Your task to perform on an android device: change your default location settings in chrome Image 0: 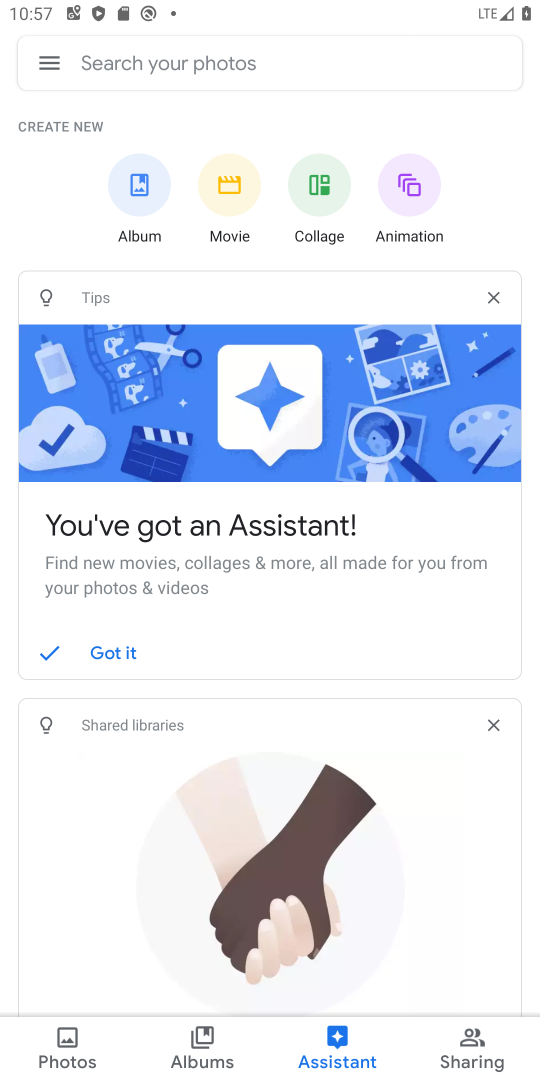
Step 0: press home button
Your task to perform on an android device: change your default location settings in chrome Image 1: 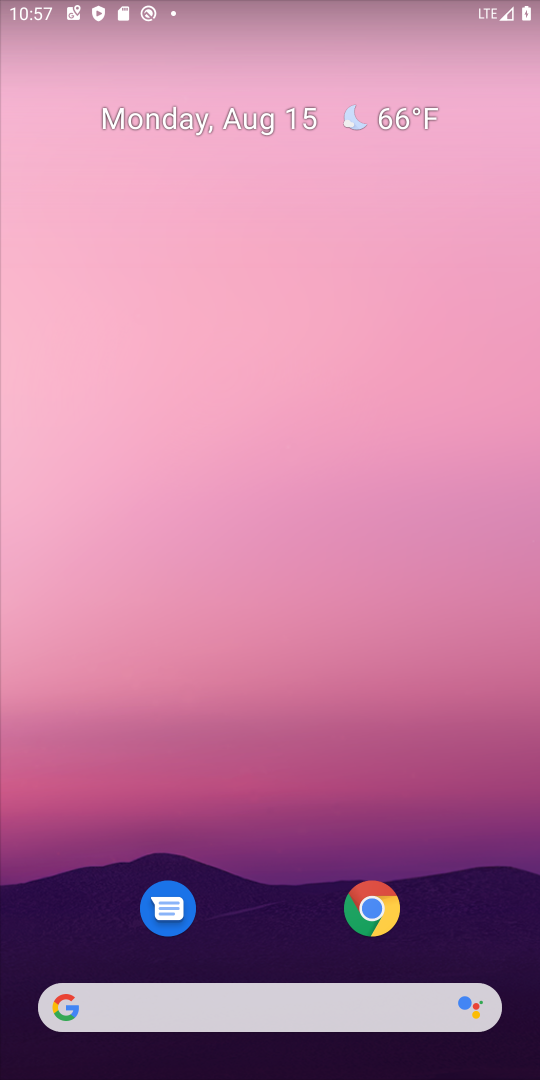
Step 1: click (370, 909)
Your task to perform on an android device: change your default location settings in chrome Image 2: 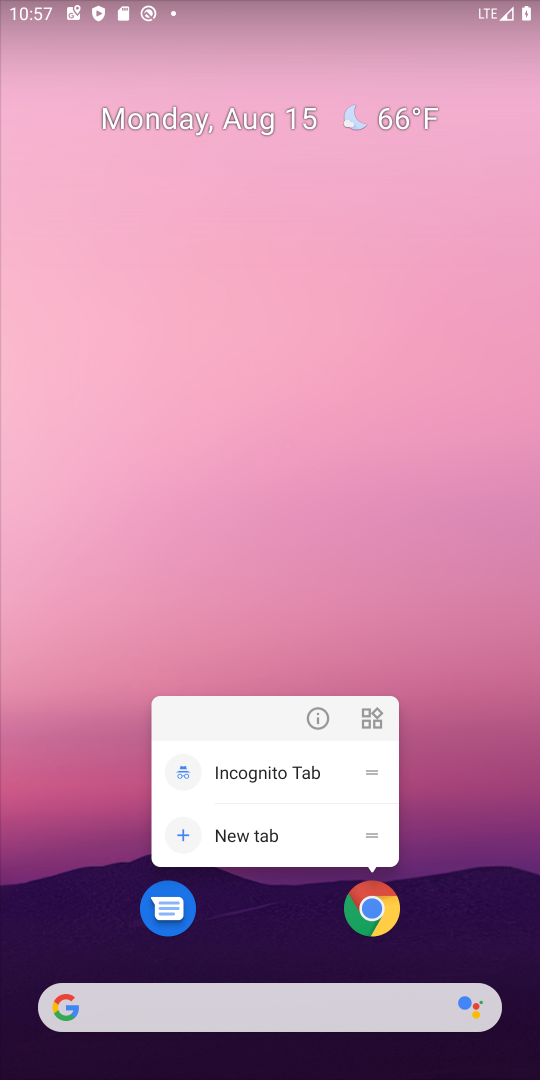
Step 2: click (370, 909)
Your task to perform on an android device: change your default location settings in chrome Image 3: 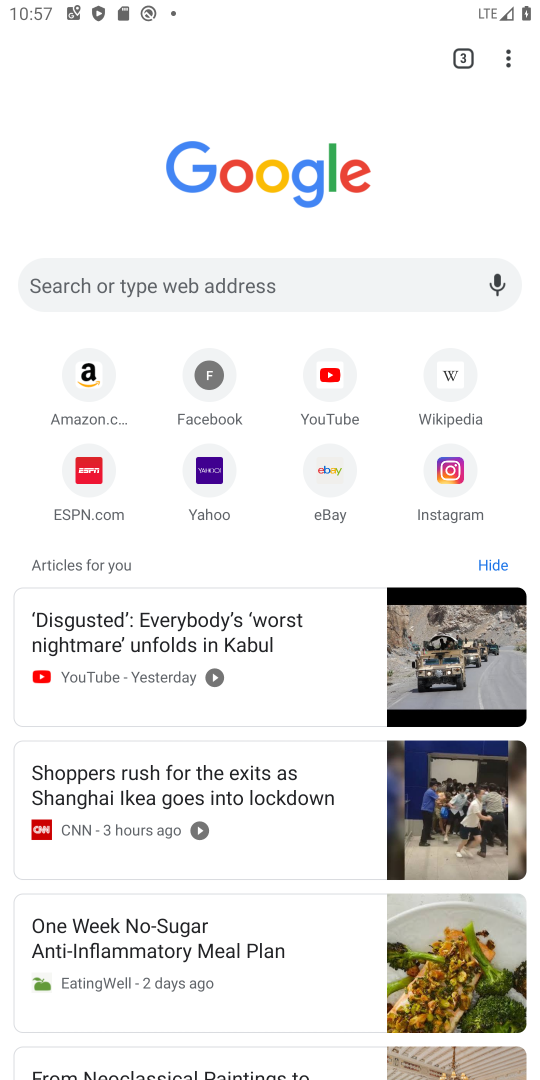
Step 3: click (521, 62)
Your task to perform on an android device: change your default location settings in chrome Image 4: 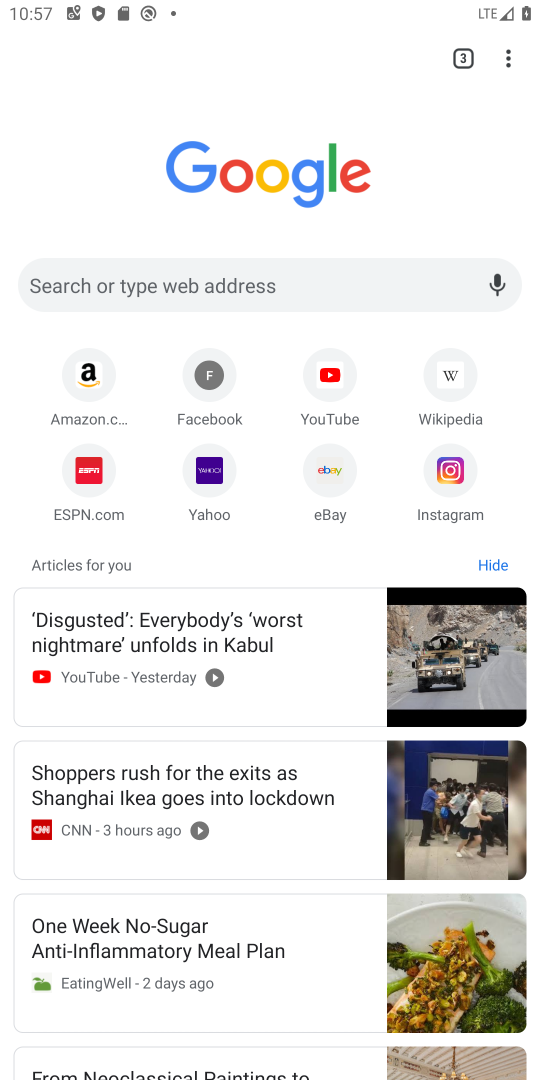
Step 4: click (514, 56)
Your task to perform on an android device: change your default location settings in chrome Image 5: 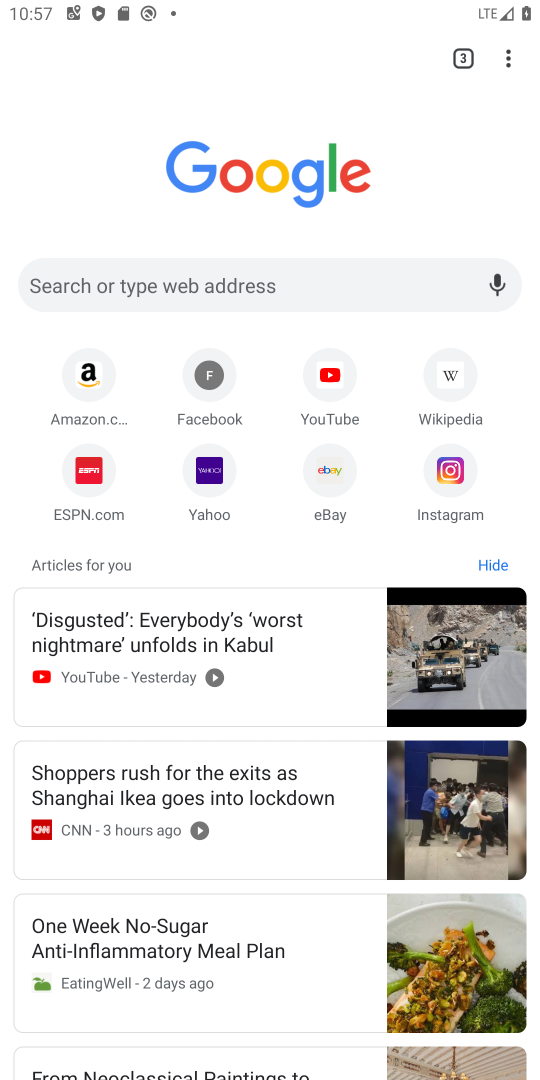
Step 5: click (497, 45)
Your task to perform on an android device: change your default location settings in chrome Image 6: 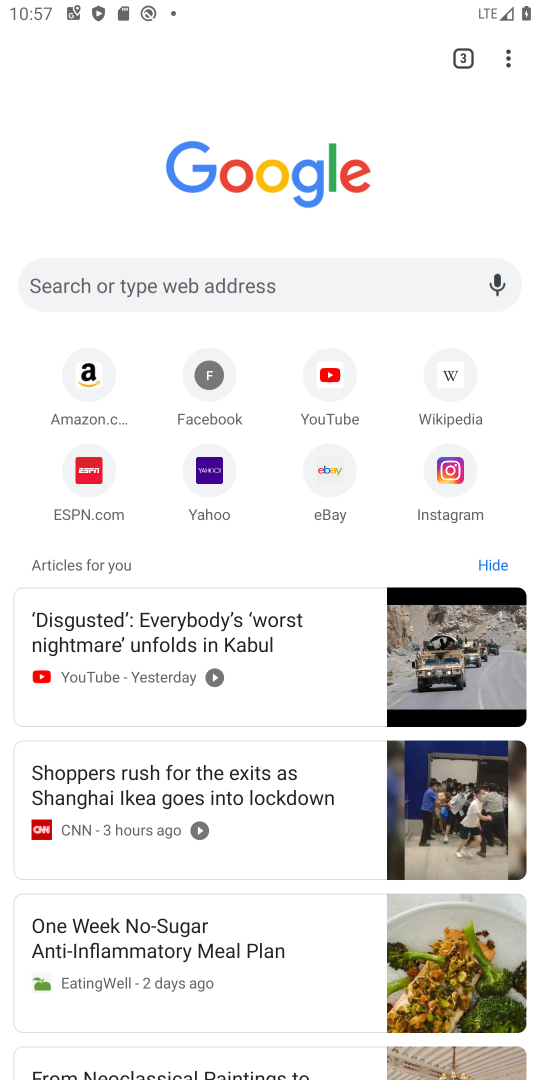
Step 6: click (497, 56)
Your task to perform on an android device: change your default location settings in chrome Image 7: 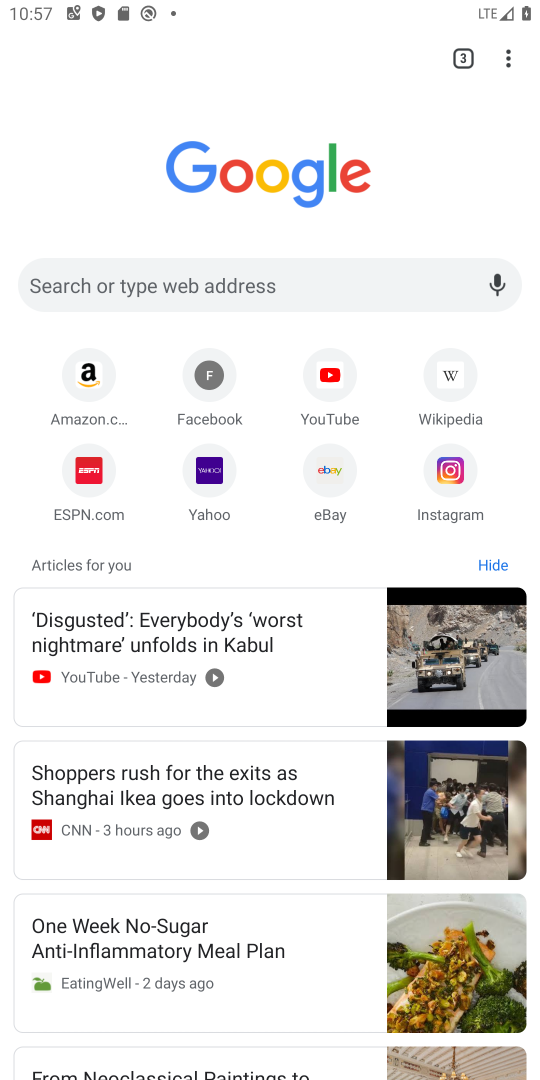
Step 7: click (500, 40)
Your task to perform on an android device: change your default location settings in chrome Image 8: 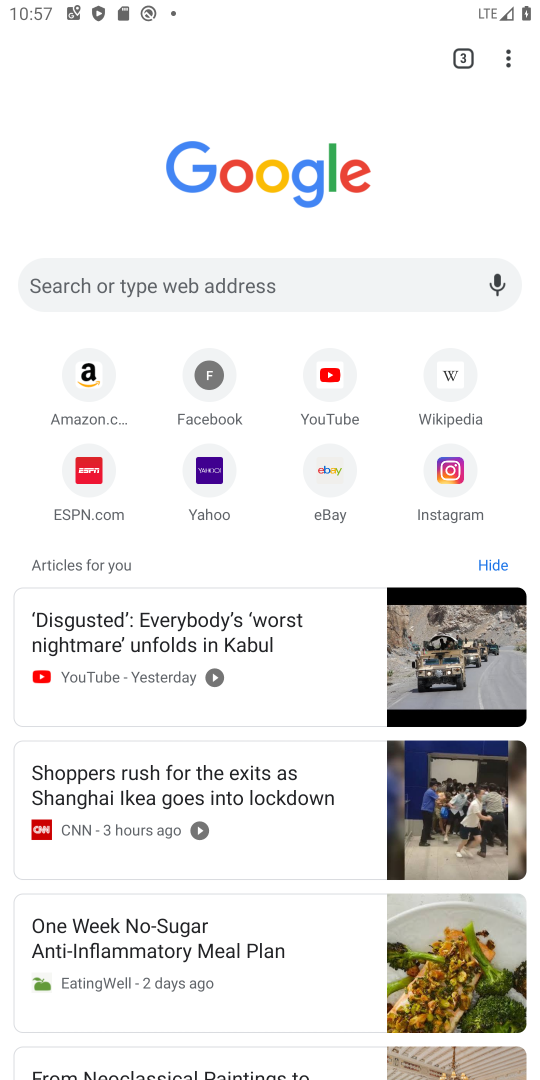
Step 8: click (518, 50)
Your task to perform on an android device: change your default location settings in chrome Image 9: 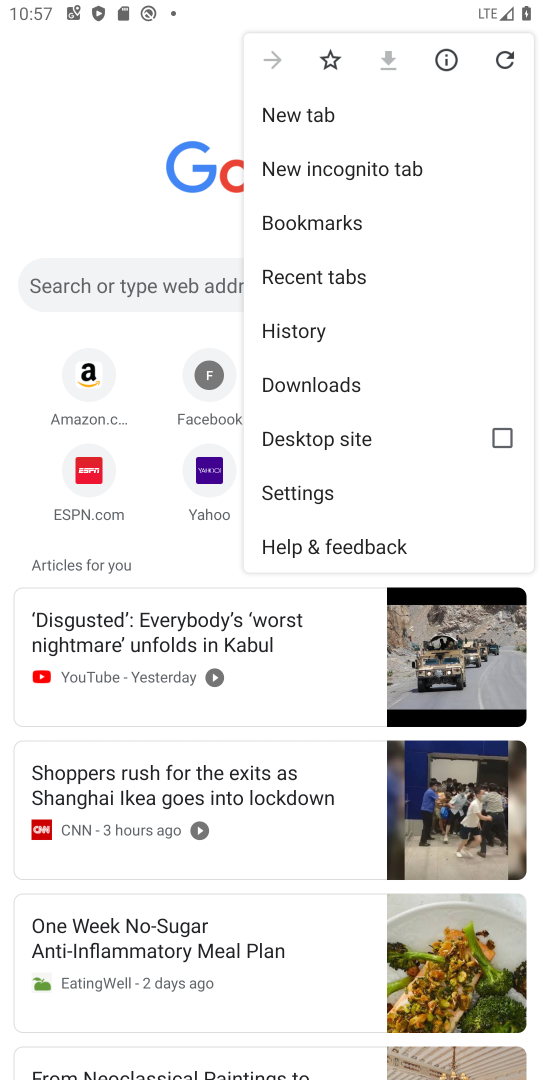
Step 9: click (343, 485)
Your task to perform on an android device: change your default location settings in chrome Image 10: 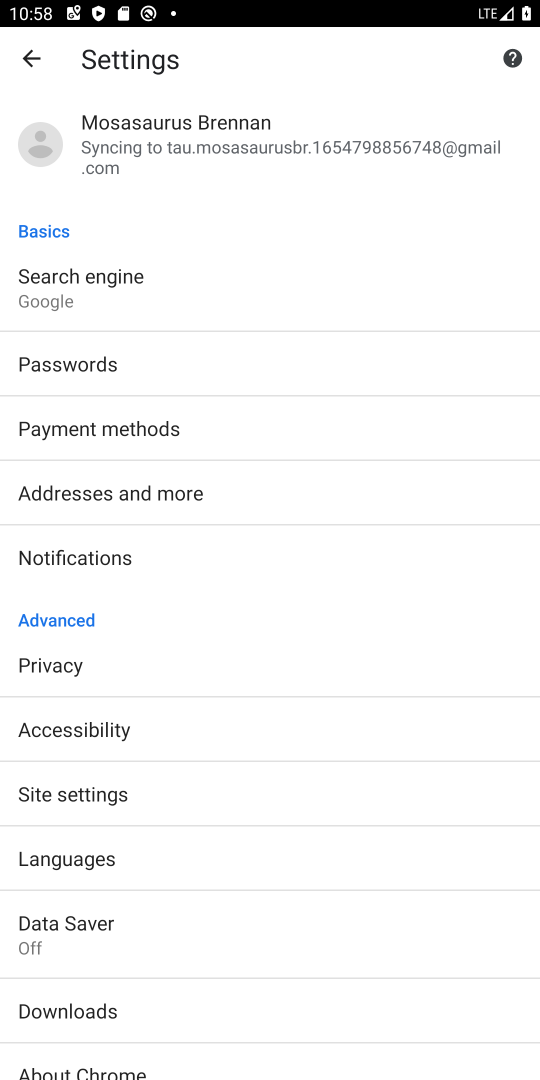
Step 10: click (68, 794)
Your task to perform on an android device: change your default location settings in chrome Image 11: 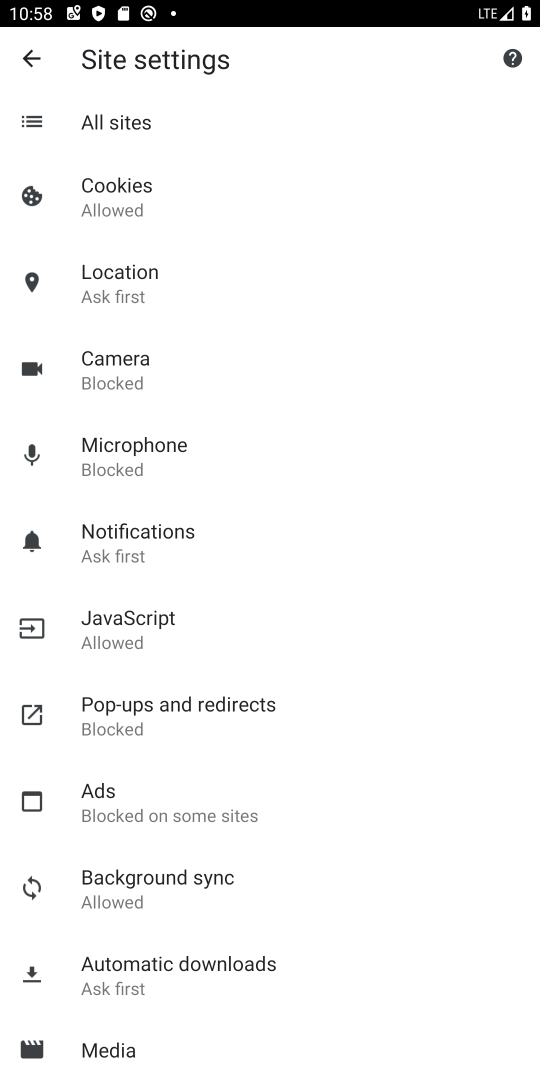
Step 11: click (173, 302)
Your task to perform on an android device: change your default location settings in chrome Image 12: 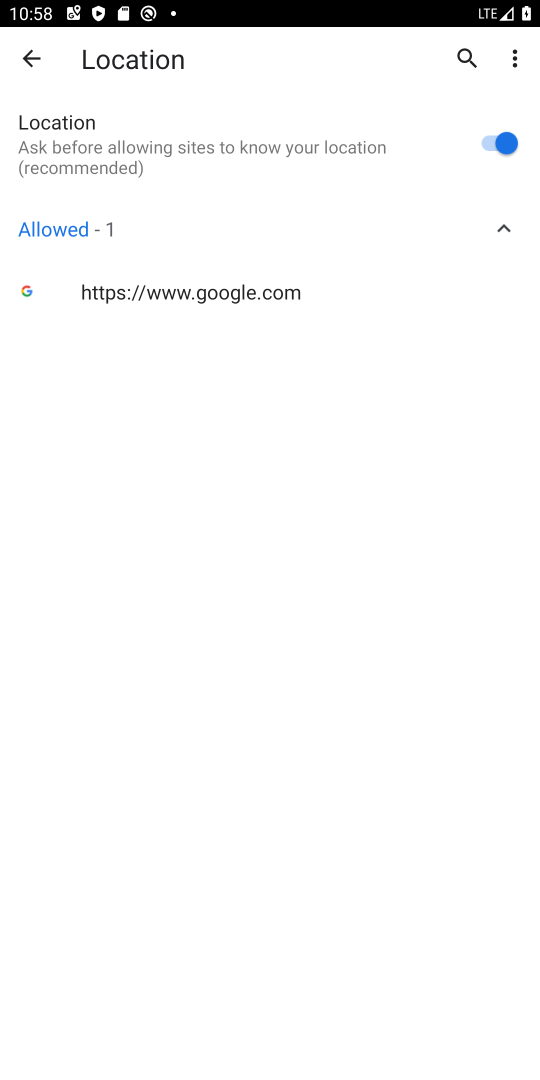
Step 12: click (496, 140)
Your task to perform on an android device: change your default location settings in chrome Image 13: 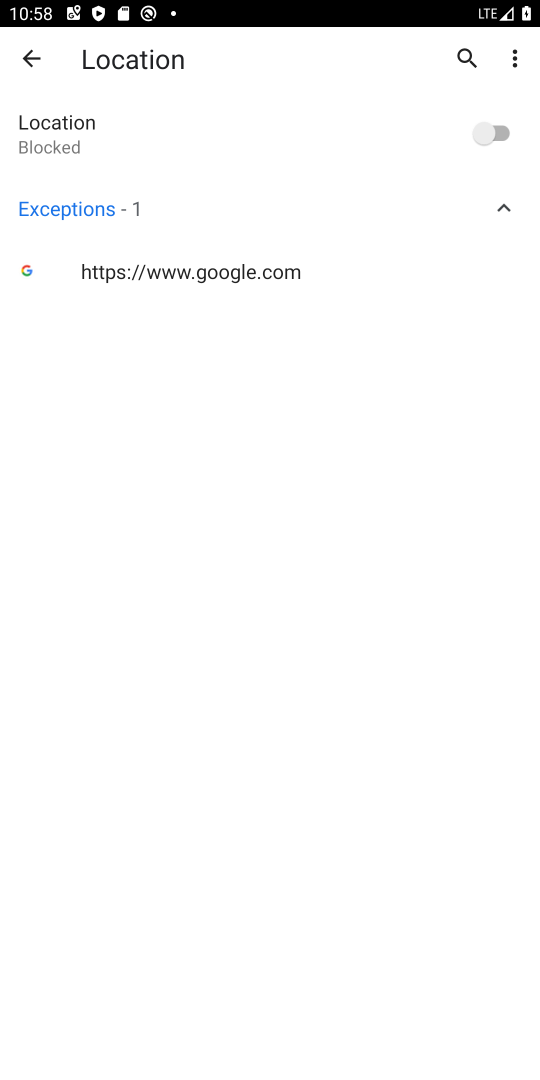
Step 13: task complete